Your task to perform on an android device: turn on wifi Image 0: 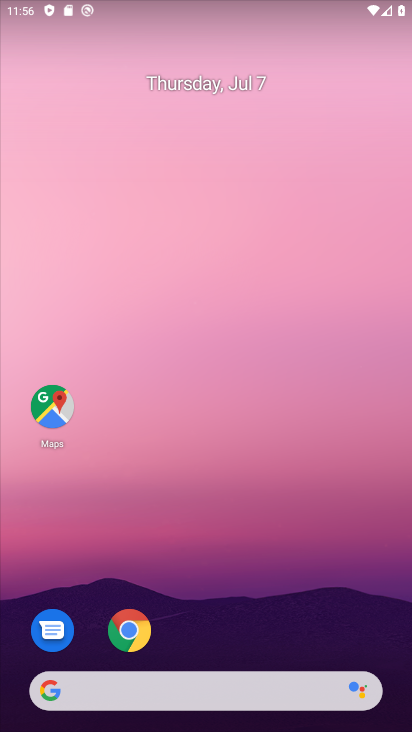
Step 0: drag from (388, 627) to (229, 11)
Your task to perform on an android device: turn on wifi Image 1: 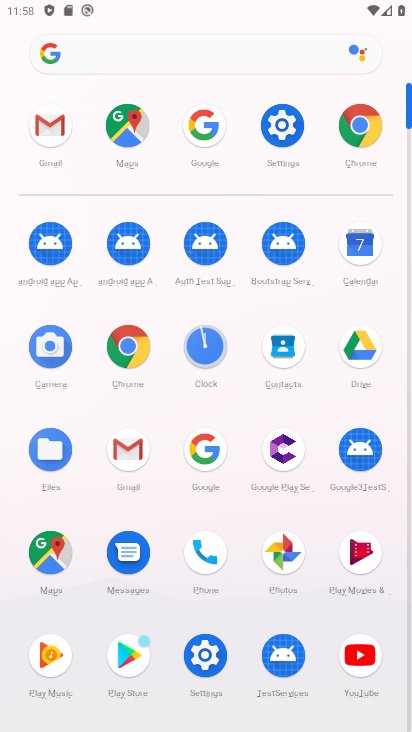
Step 1: task complete